Your task to perform on an android device: turn off translation in the chrome app Image 0: 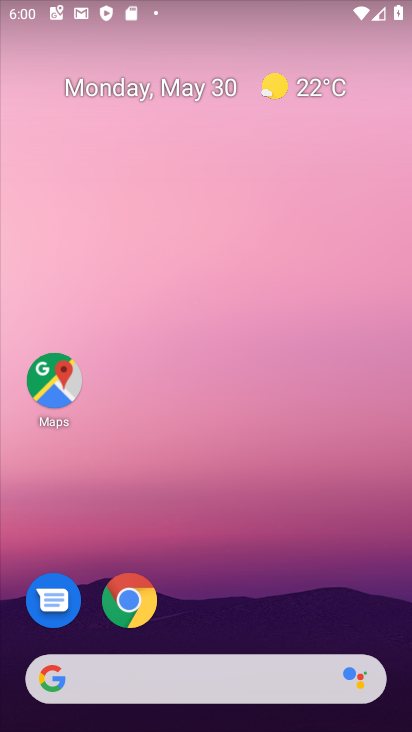
Step 0: press home button
Your task to perform on an android device: turn off translation in the chrome app Image 1: 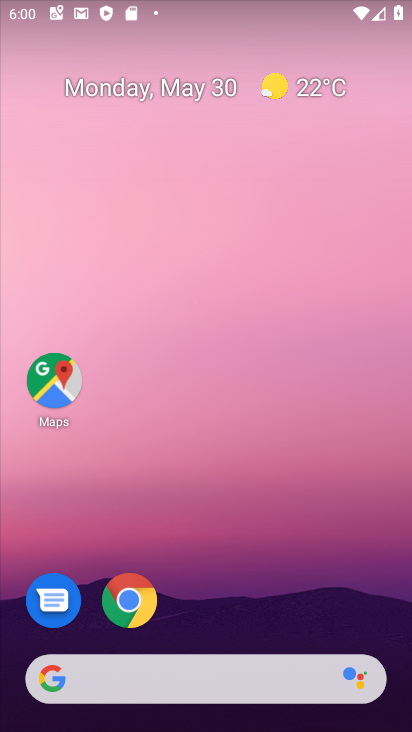
Step 1: click (131, 606)
Your task to perform on an android device: turn off translation in the chrome app Image 2: 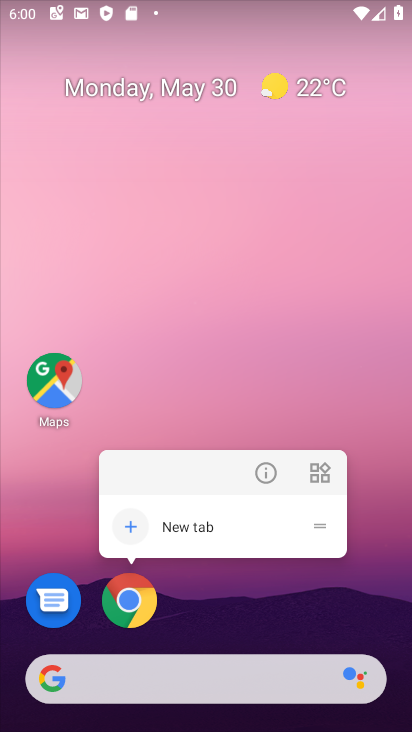
Step 2: click (131, 606)
Your task to perform on an android device: turn off translation in the chrome app Image 3: 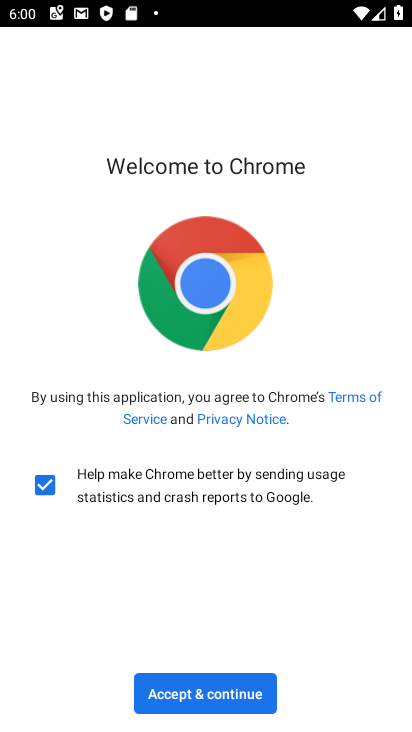
Step 3: click (208, 698)
Your task to perform on an android device: turn off translation in the chrome app Image 4: 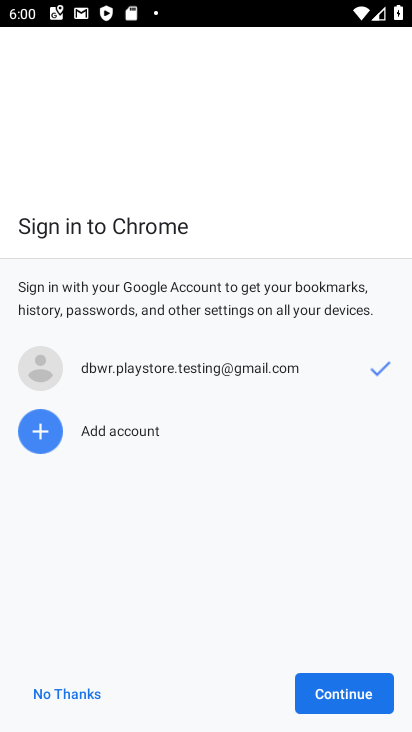
Step 4: click (343, 704)
Your task to perform on an android device: turn off translation in the chrome app Image 5: 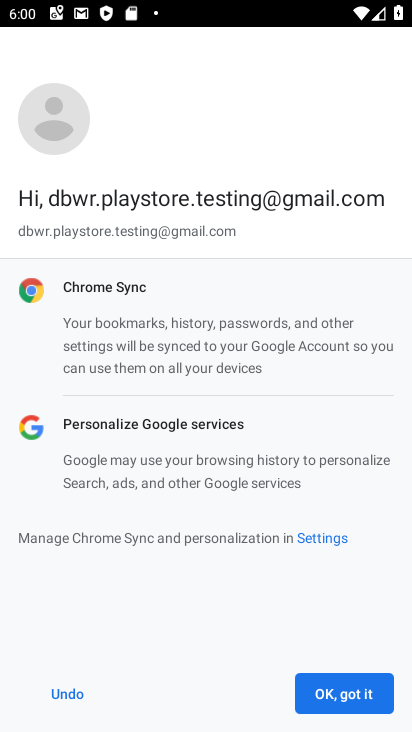
Step 5: click (341, 701)
Your task to perform on an android device: turn off translation in the chrome app Image 6: 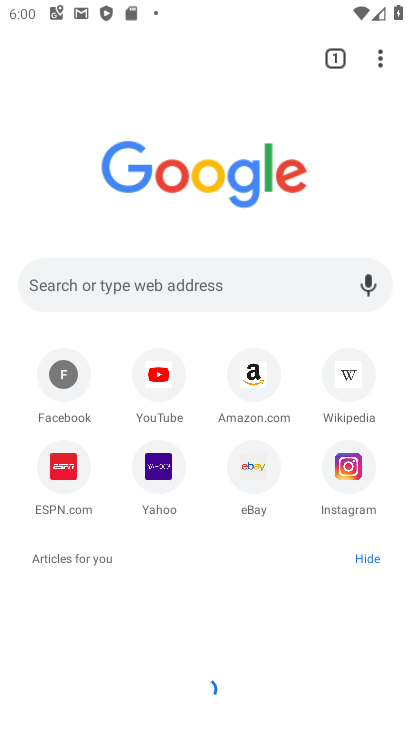
Step 6: drag from (379, 56) to (157, 494)
Your task to perform on an android device: turn off translation in the chrome app Image 7: 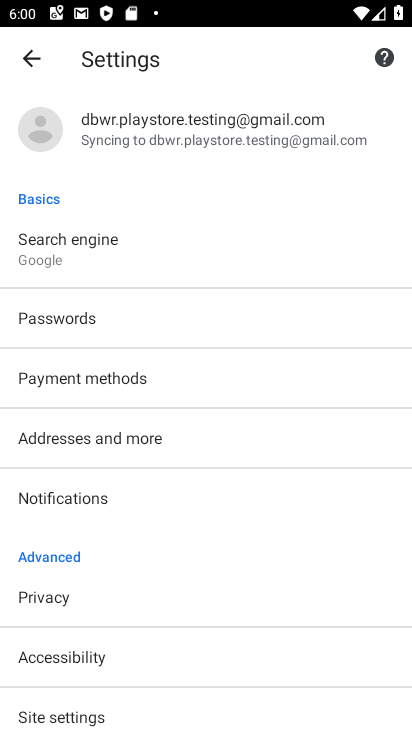
Step 7: drag from (250, 648) to (270, 187)
Your task to perform on an android device: turn off translation in the chrome app Image 8: 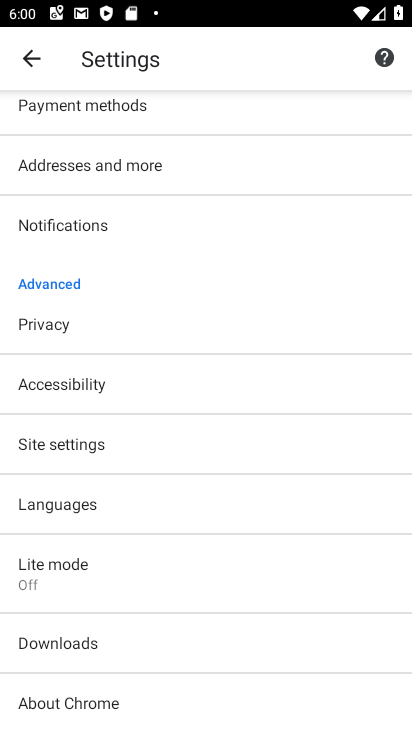
Step 8: click (55, 500)
Your task to perform on an android device: turn off translation in the chrome app Image 9: 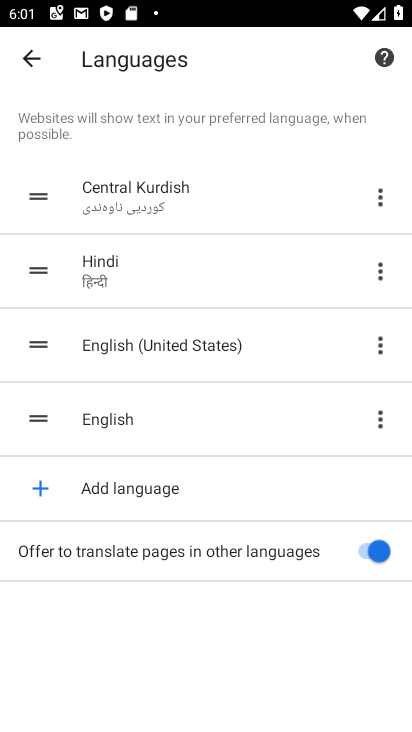
Step 9: click (379, 553)
Your task to perform on an android device: turn off translation in the chrome app Image 10: 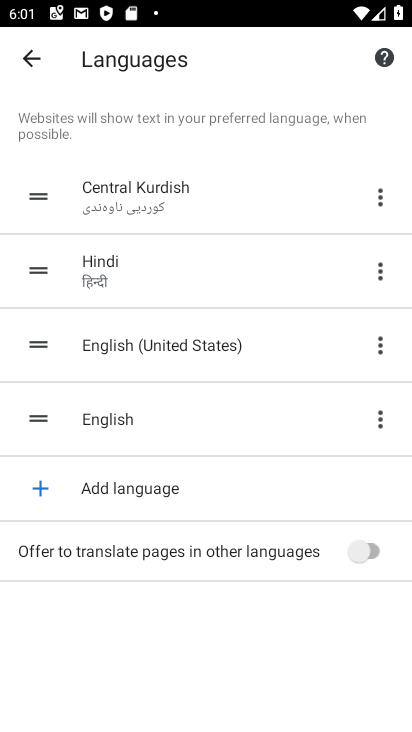
Step 10: task complete